Your task to perform on an android device: find photos in the google photos app Image 0: 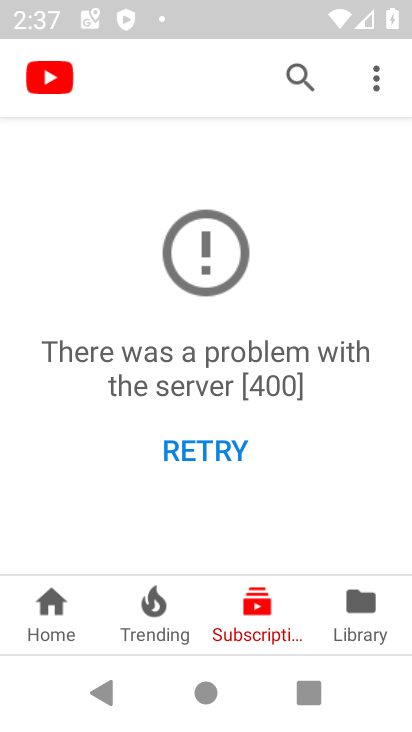
Step 0: press home button
Your task to perform on an android device: find photos in the google photos app Image 1: 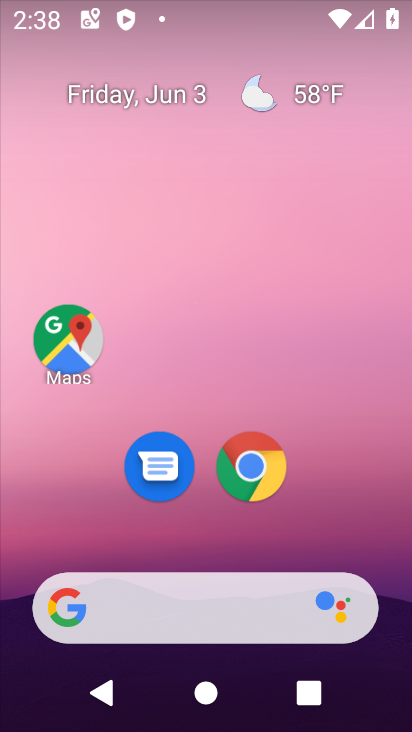
Step 1: drag from (342, 496) to (360, 28)
Your task to perform on an android device: find photos in the google photos app Image 2: 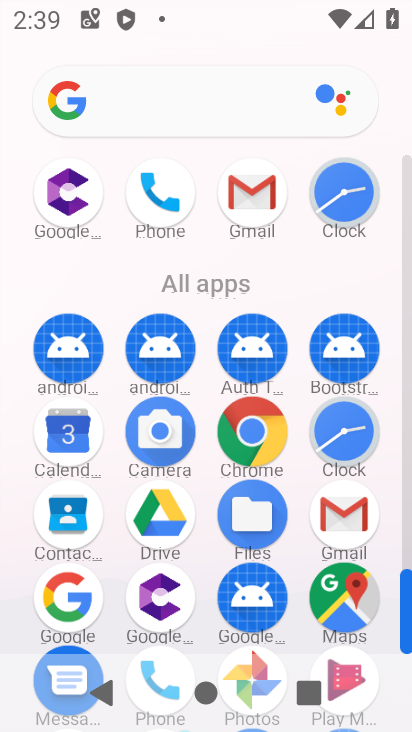
Step 2: click (403, 683)
Your task to perform on an android device: find photos in the google photos app Image 3: 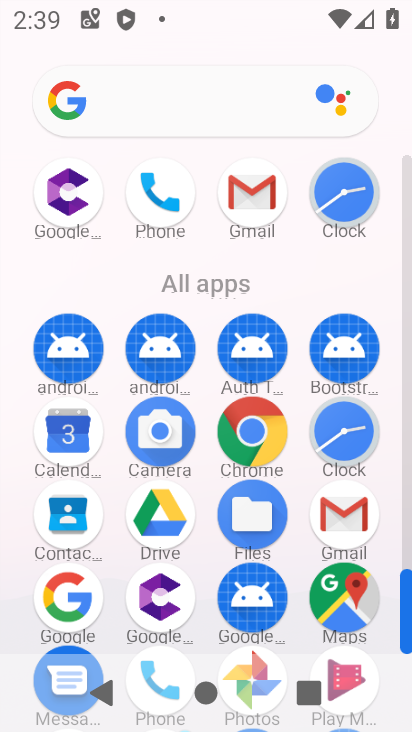
Step 3: drag from (404, 680) to (403, 500)
Your task to perform on an android device: find photos in the google photos app Image 4: 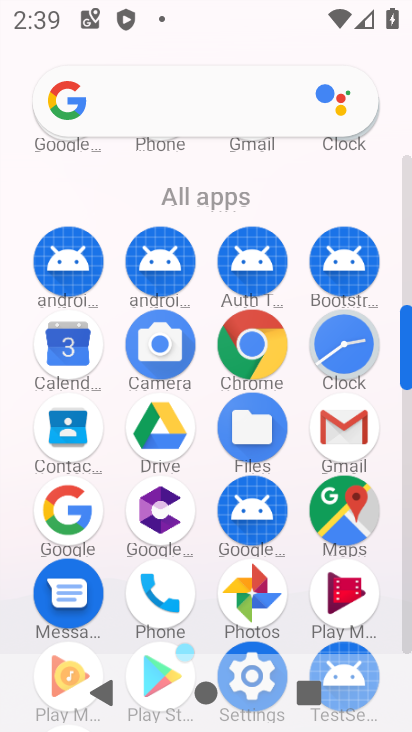
Step 4: click (243, 607)
Your task to perform on an android device: find photos in the google photos app Image 5: 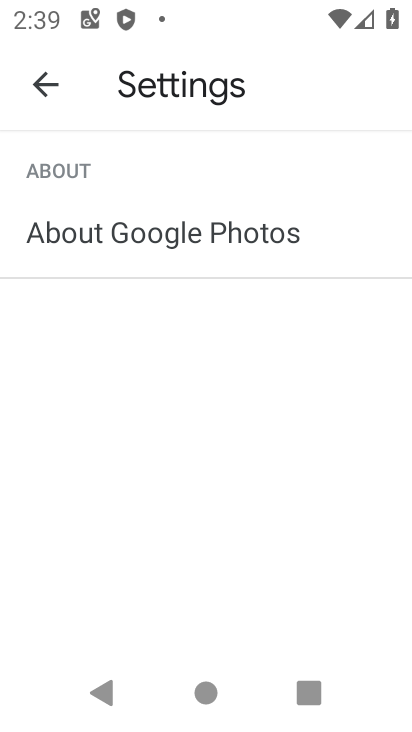
Step 5: click (42, 77)
Your task to perform on an android device: find photos in the google photos app Image 6: 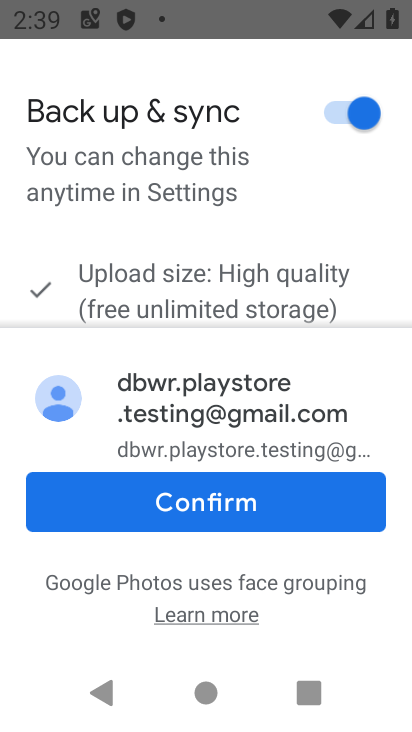
Step 6: click (227, 515)
Your task to perform on an android device: find photos in the google photos app Image 7: 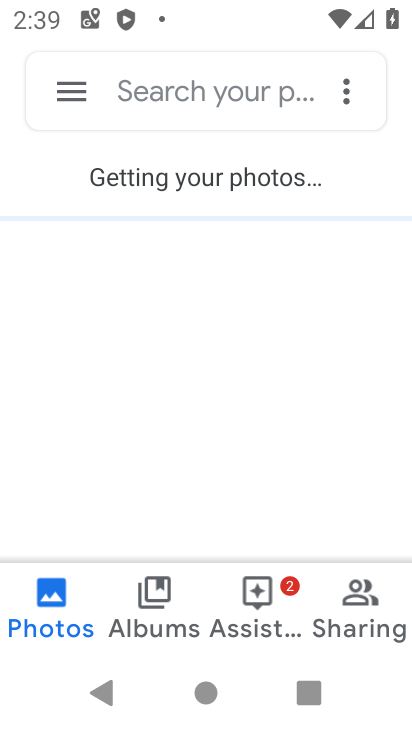
Step 7: drag from (249, 284) to (234, 150)
Your task to perform on an android device: find photos in the google photos app Image 8: 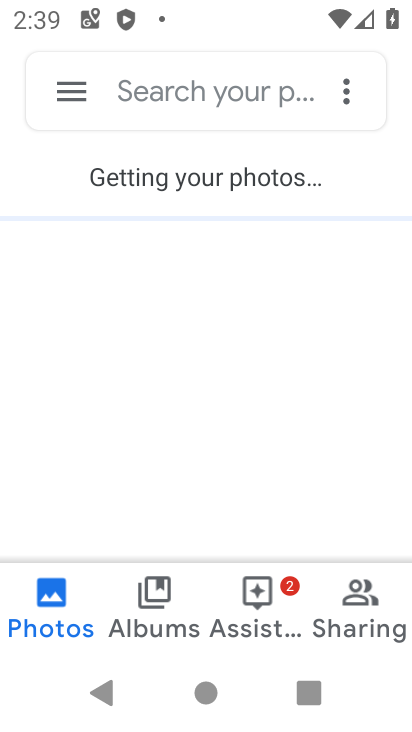
Step 8: drag from (205, 141) to (231, 341)
Your task to perform on an android device: find photos in the google photos app Image 9: 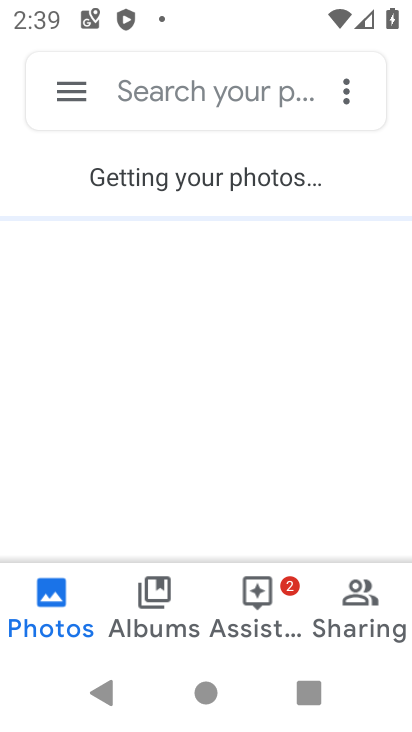
Step 9: click (140, 601)
Your task to perform on an android device: find photos in the google photos app Image 10: 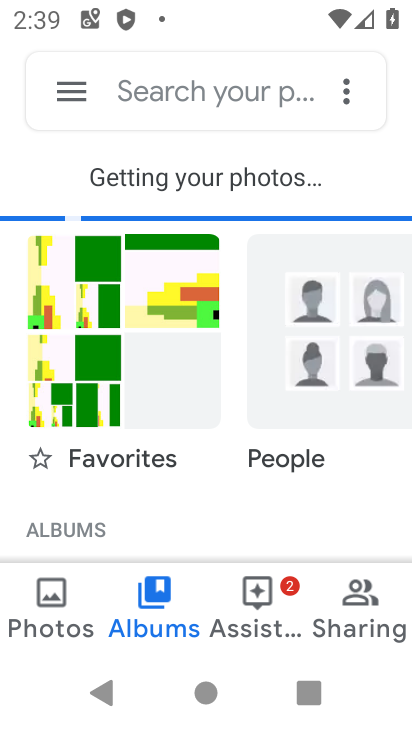
Step 10: click (42, 585)
Your task to perform on an android device: find photos in the google photos app Image 11: 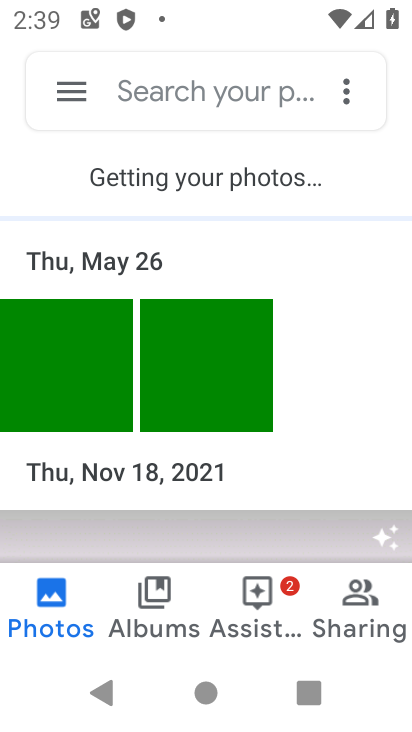
Step 11: task complete